Your task to perform on an android device: show emergency info Image 0: 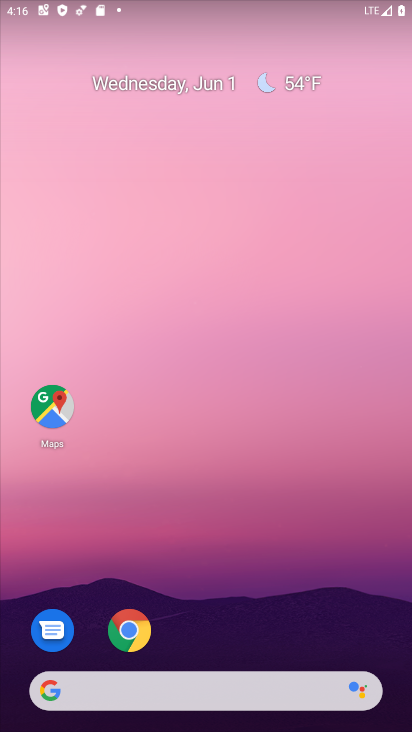
Step 0: drag from (269, 547) to (201, 52)
Your task to perform on an android device: show emergency info Image 1: 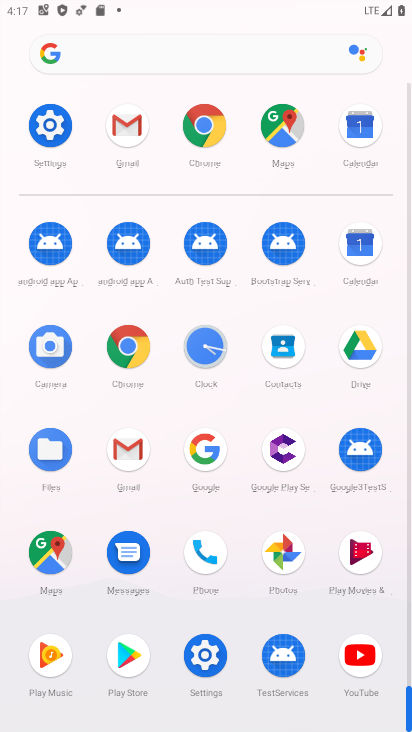
Step 1: click (199, 653)
Your task to perform on an android device: show emergency info Image 2: 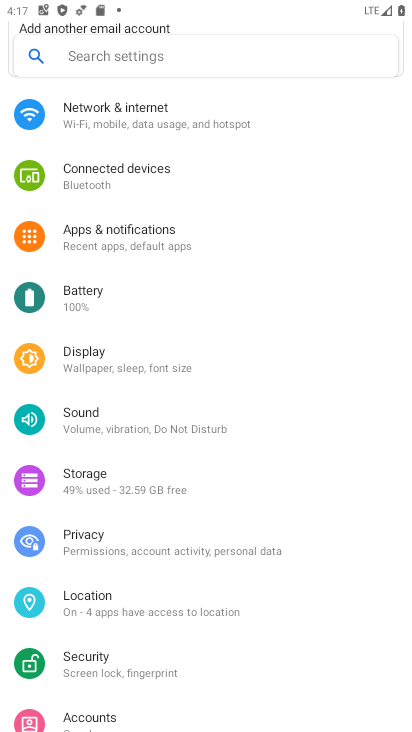
Step 2: drag from (308, 560) to (300, 76)
Your task to perform on an android device: show emergency info Image 3: 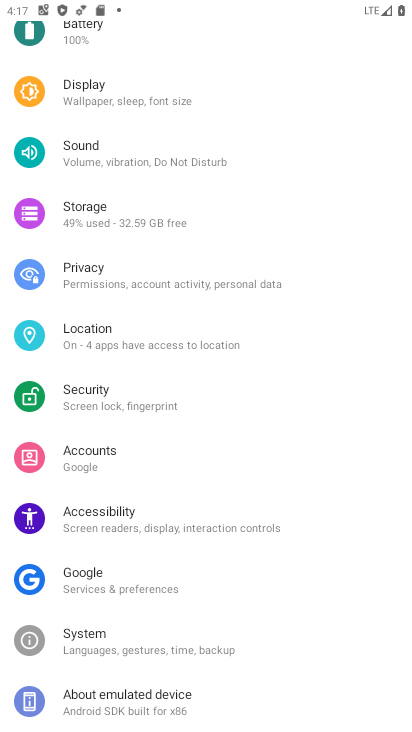
Step 3: click (135, 692)
Your task to perform on an android device: show emergency info Image 4: 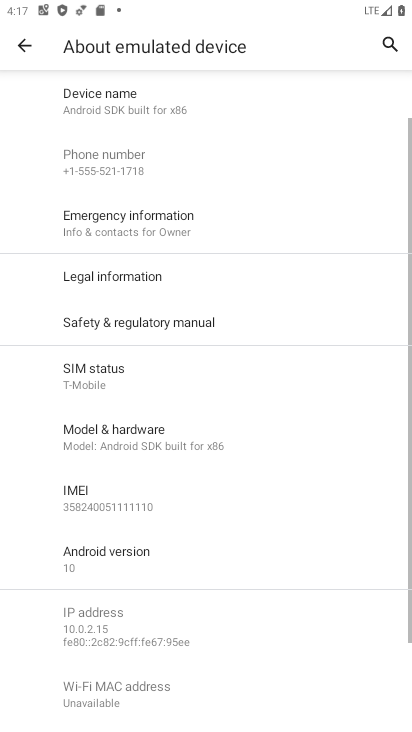
Step 4: task complete